Your task to perform on an android device: clear history in the chrome app Image 0: 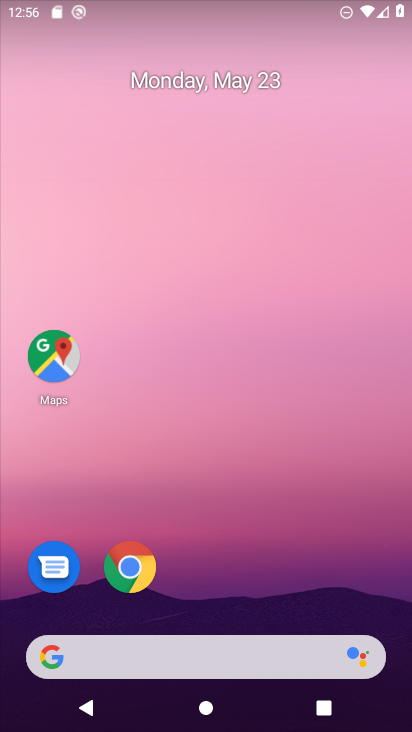
Step 0: click (134, 586)
Your task to perform on an android device: clear history in the chrome app Image 1: 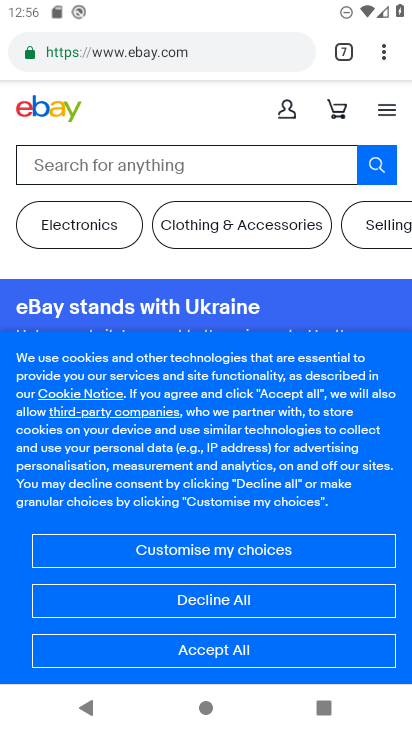
Step 1: click (127, 574)
Your task to perform on an android device: clear history in the chrome app Image 2: 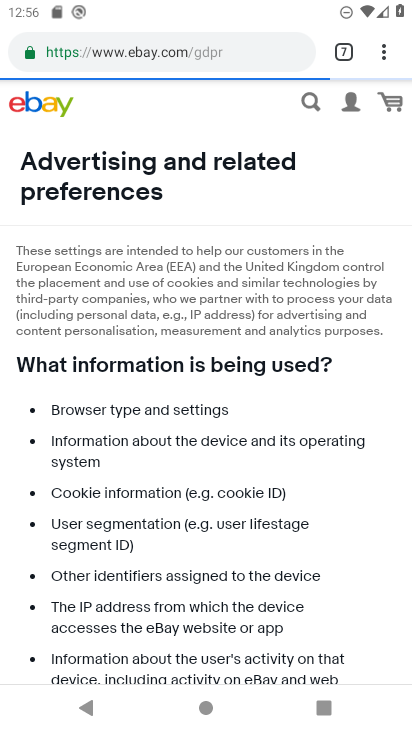
Step 2: click (393, 54)
Your task to perform on an android device: clear history in the chrome app Image 3: 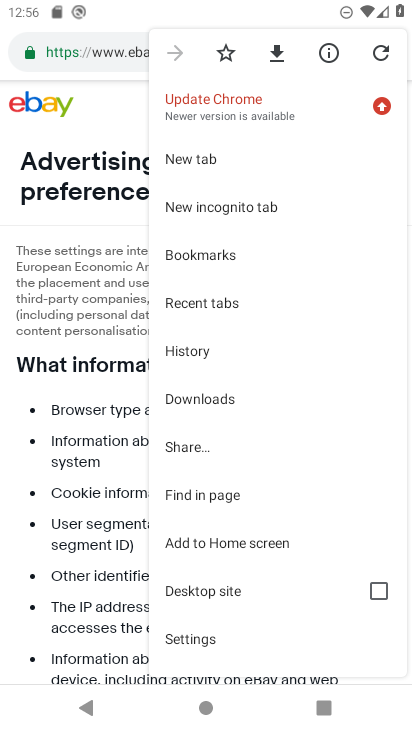
Step 3: click (177, 348)
Your task to perform on an android device: clear history in the chrome app Image 4: 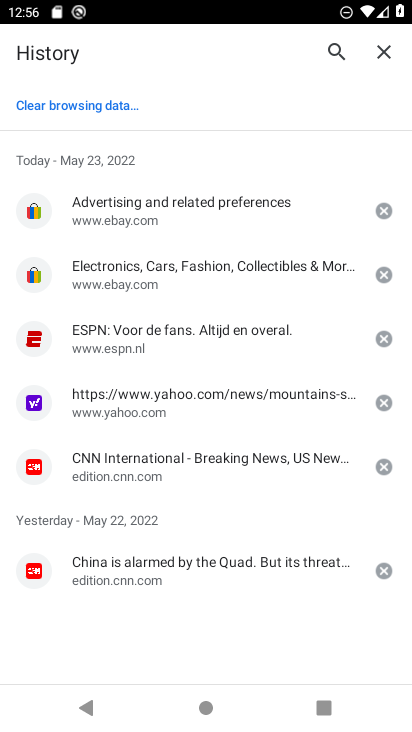
Step 4: click (76, 111)
Your task to perform on an android device: clear history in the chrome app Image 5: 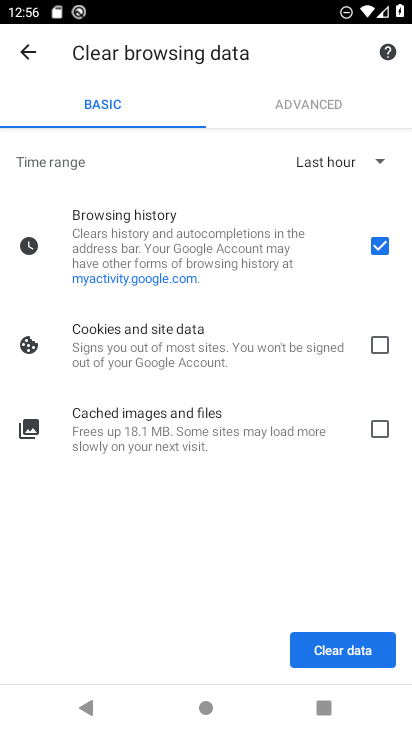
Step 5: click (346, 648)
Your task to perform on an android device: clear history in the chrome app Image 6: 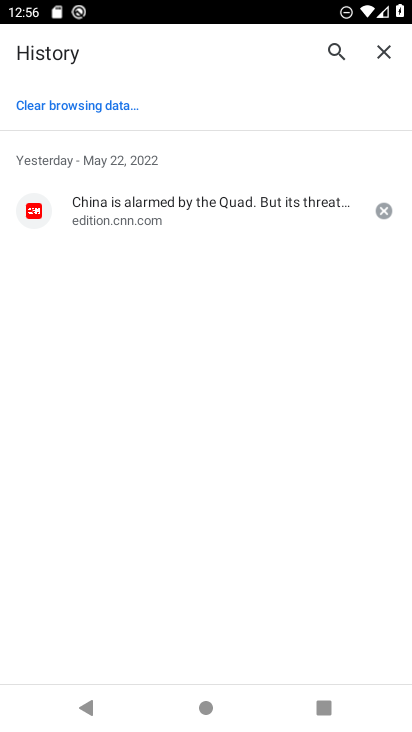
Step 6: task complete